Your task to perform on an android device: turn smart compose on in the gmail app Image 0: 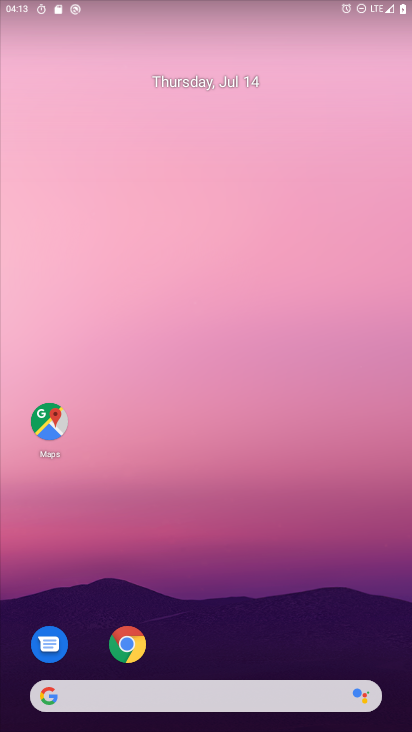
Step 0: drag from (260, 535) to (223, 66)
Your task to perform on an android device: turn smart compose on in the gmail app Image 1: 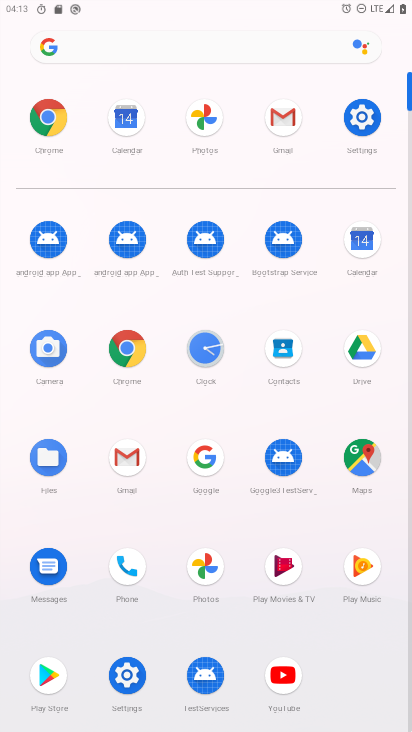
Step 1: click (288, 109)
Your task to perform on an android device: turn smart compose on in the gmail app Image 2: 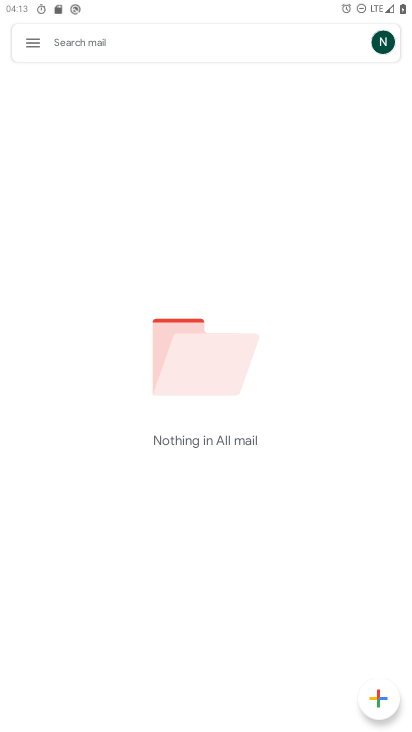
Step 2: click (27, 37)
Your task to perform on an android device: turn smart compose on in the gmail app Image 3: 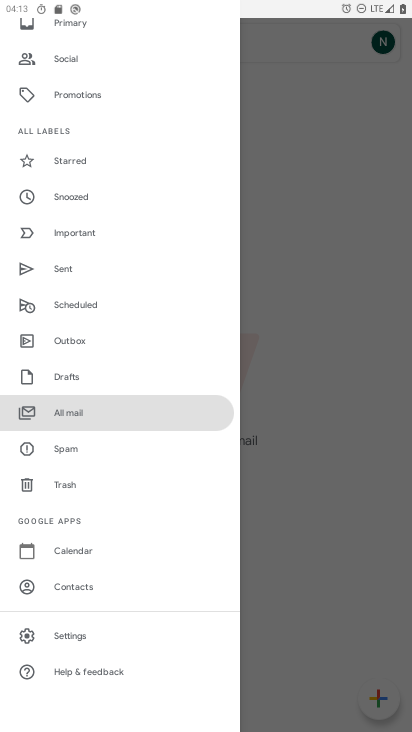
Step 3: click (79, 629)
Your task to perform on an android device: turn smart compose on in the gmail app Image 4: 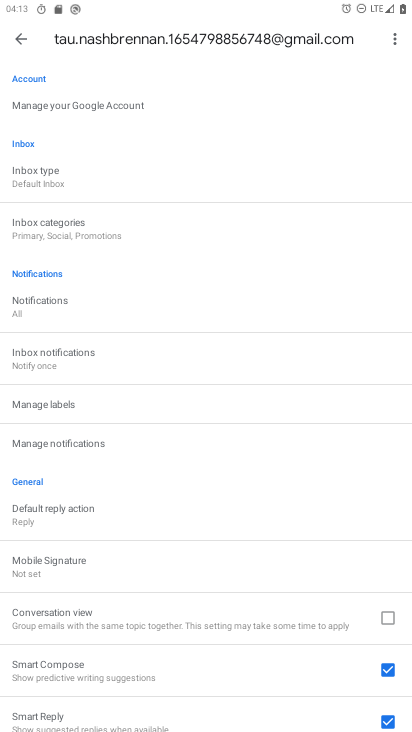
Step 4: task complete